Your task to perform on an android device: Open network settings Image 0: 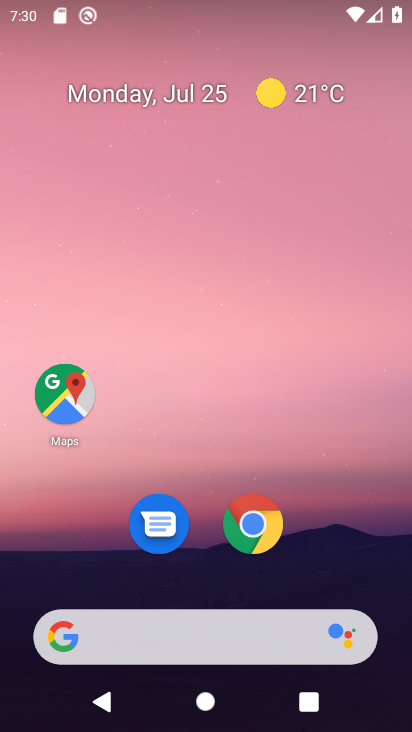
Step 0: drag from (207, 639) to (342, 257)
Your task to perform on an android device: Open network settings Image 1: 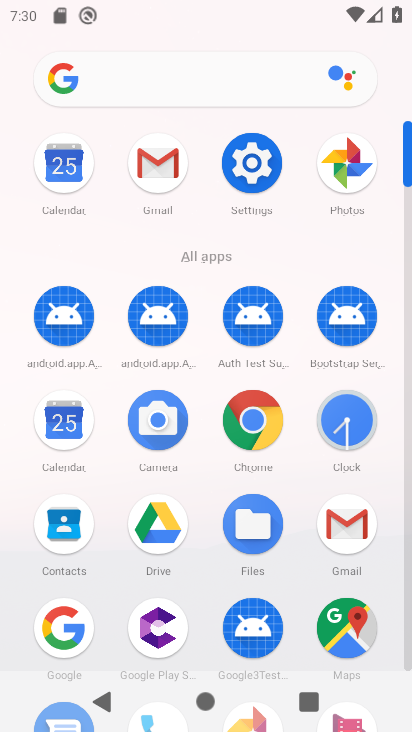
Step 1: click (259, 173)
Your task to perform on an android device: Open network settings Image 2: 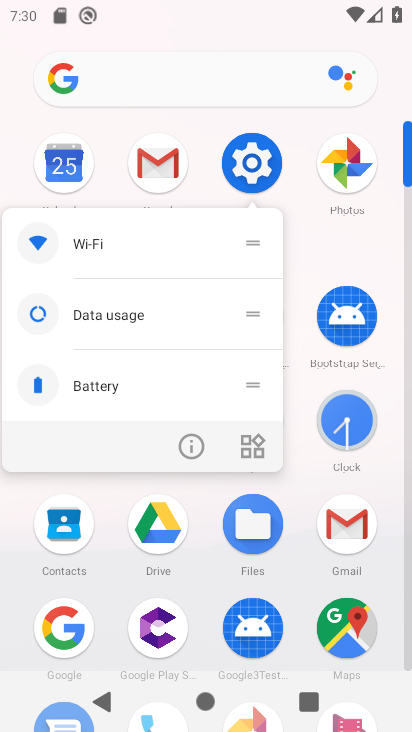
Step 2: click (257, 168)
Your task to perform on an android device: Open network settings Image 3: 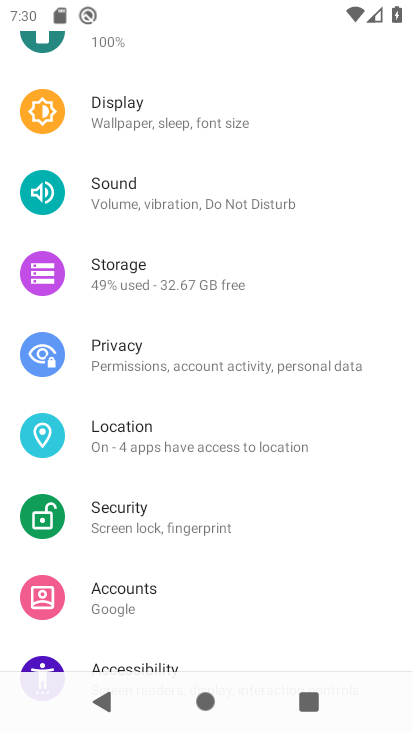
Step 3: drag from (281, 145) to (207, 623)
Your task to perform on an android device: Open network settings Image 4: 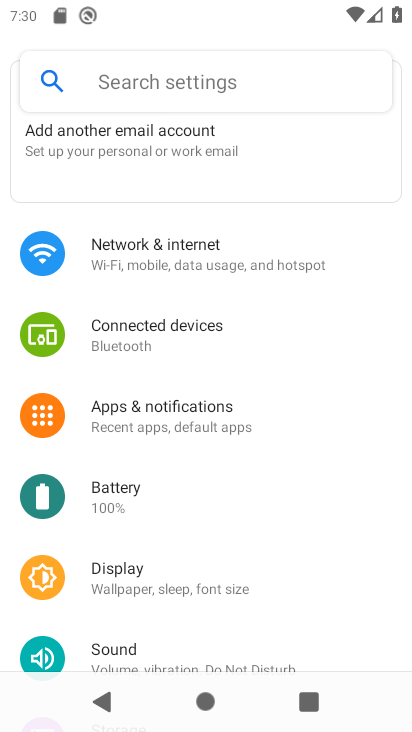
Step 4: click (153, 254)
Your task to perform on an android device: Open network settings Image 5: 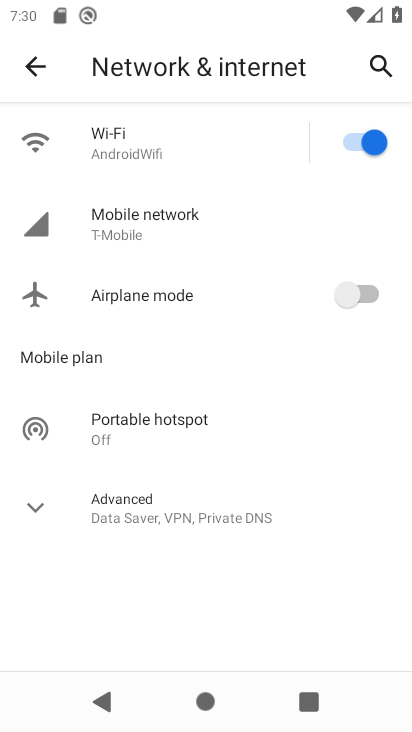
Step 5: click (175, 220)
Your task to perform on an android device: Open network settings Image 6: 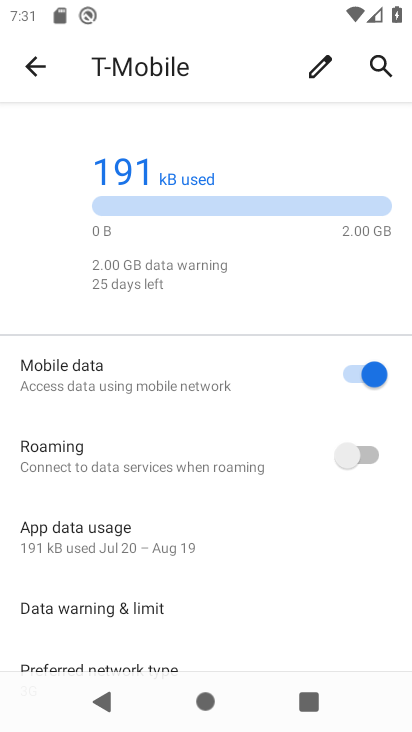
Step 6: task complete